Your task to perform on an android device: Go to CNN.com Image 0: 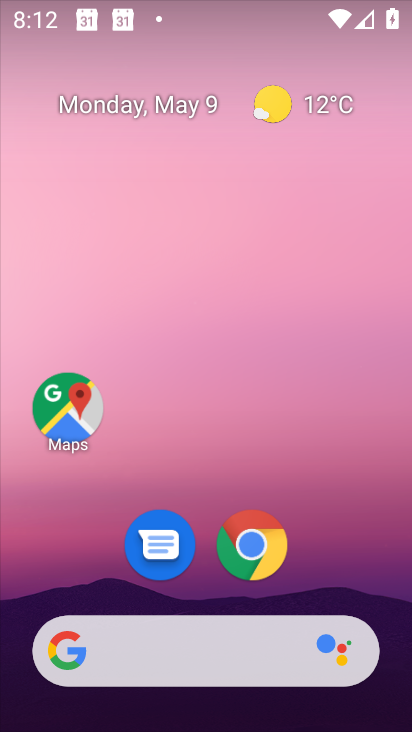
Step 0: click (254, 548)
Your task to perform on an android device: Go to CNN.com Image 1: 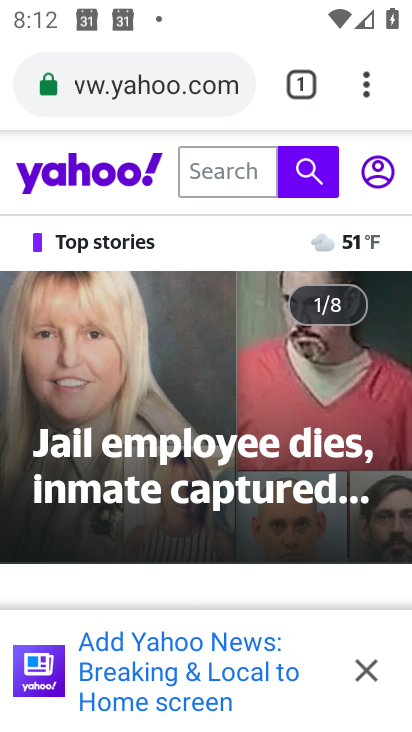
Step 1: click (367, 95)
Your task to perform on an android device: Go to CNN.com Image 2: 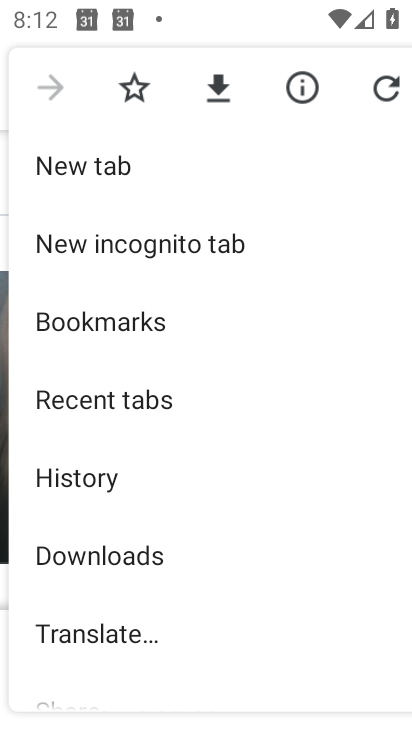
Step 2: click (102, 166)
Your task to perform on an android device: Go to CNN.com Image 3: 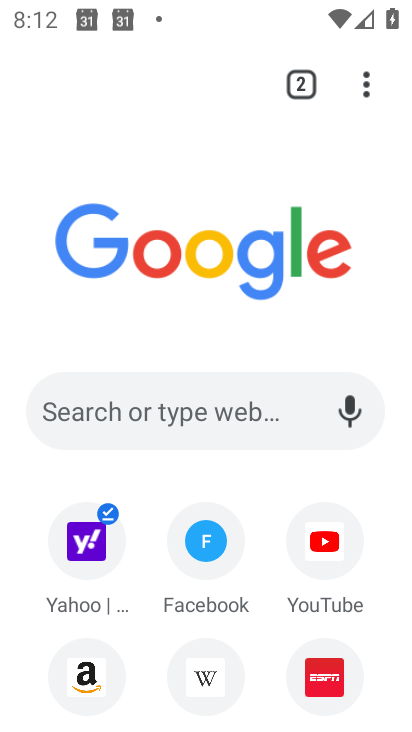
Step 3: click (184, 413)
Your task to perform on an android device: Go to CNN.com Image 4: 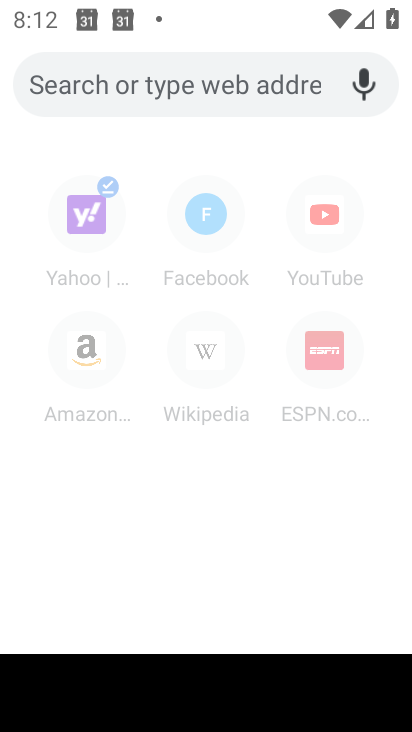
Step 4: type "CNN.com"
Your task to perform on an android device: Go to CNN.com Image 5: 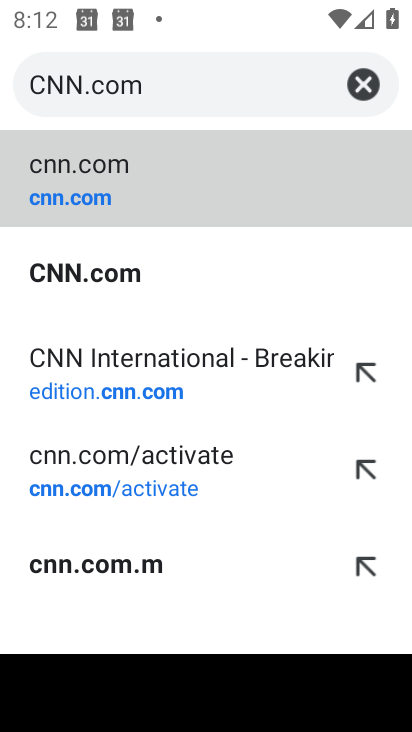
Step 5: click (75, 197)
Your task to perform on an android device: Go to CNN.com Image 6: 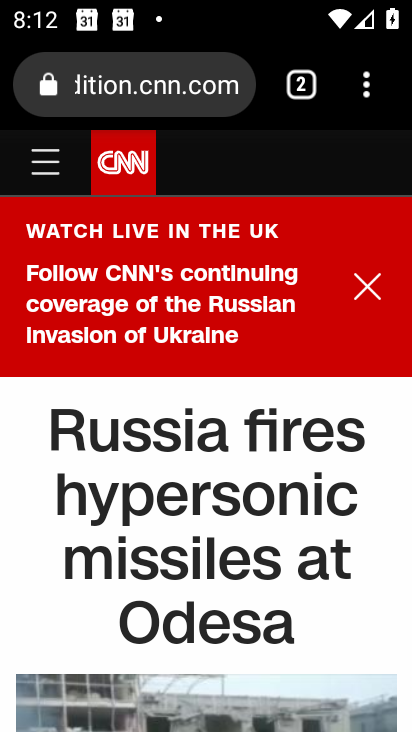
Step 6: task complete